Your task to perform on an android device: find photos in the google photos app Image 0: 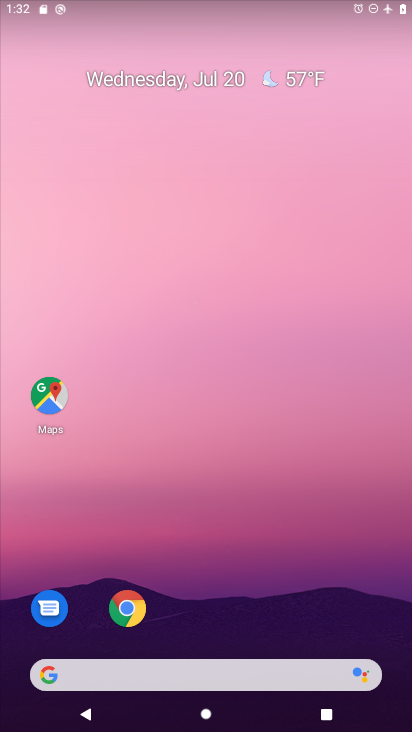
Step 0: drag from (258, 644) to (328, 81)
Your task to perform on an android device: find photos in the google photos app Image 1: 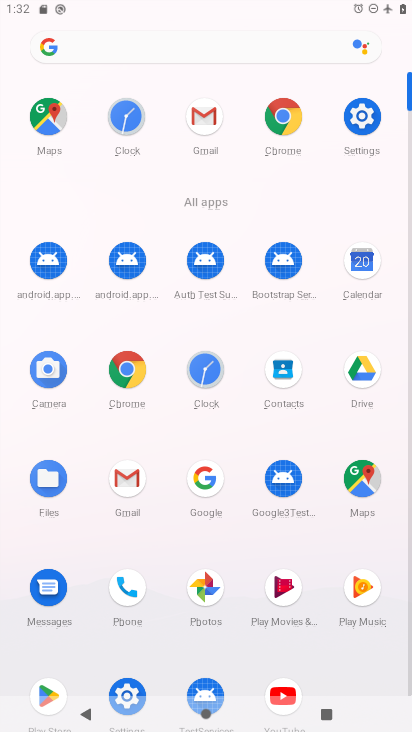
Step 1: click (198, 591)
Your task to perform on an android device: find photos in the google photos app Image 2: 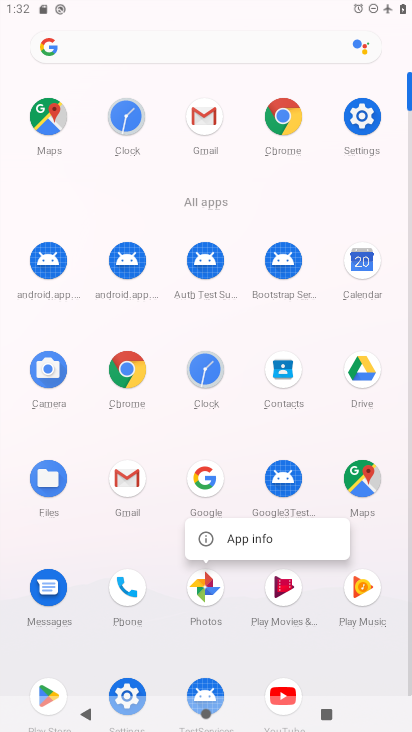
Step 2: click (198, 591)
Your task to perform on an android device: find photos in the google photos app Image 3: 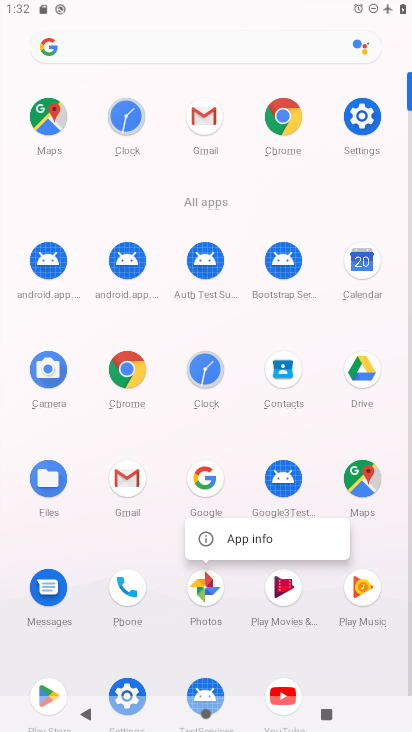
Step 3: click (198, 591)
Your task to perform on an android device: find photos in the google photos app Image 4: 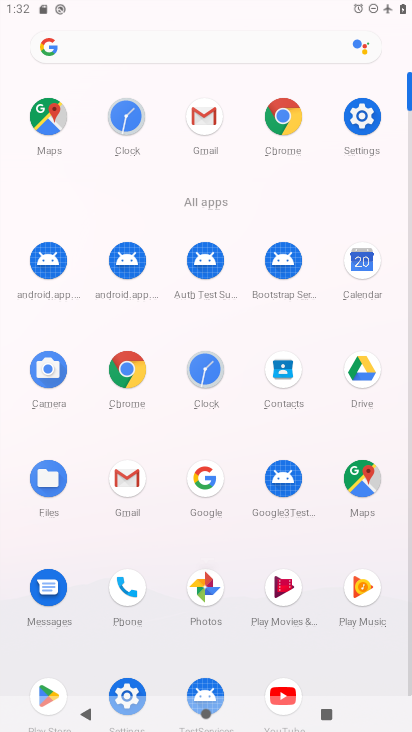
Step 4: click (198, 591)
Your task to perform on an android device: find photos in the google photos app Image 5: 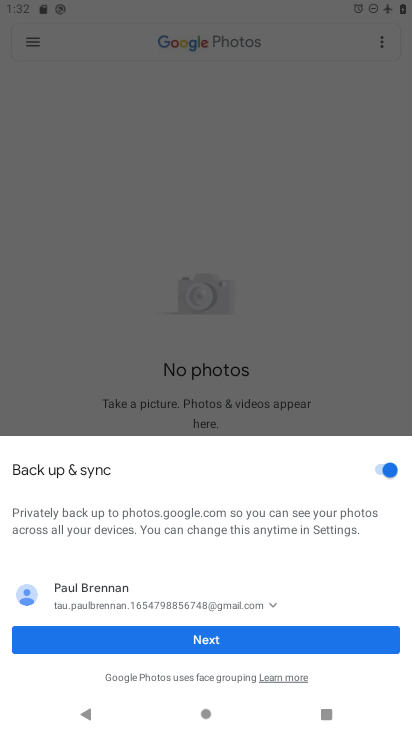
Step 5: click (282, 644)
Your task to perform on an android device: find photos in the google photos app Image 6: 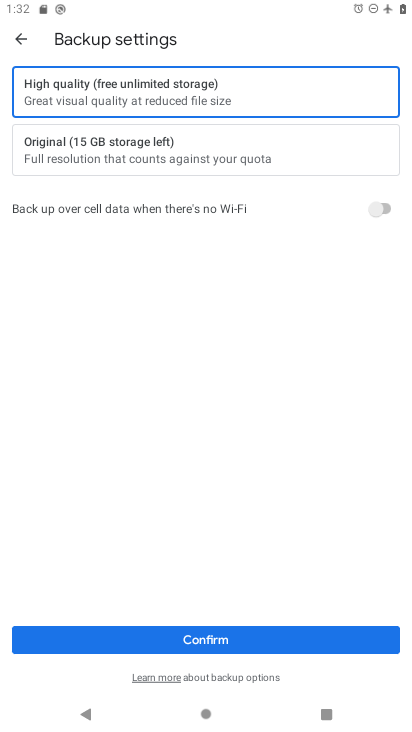
Step 6: click (282, 644)
Your task to perform on an android device: find photos in the google photos app Image 7: 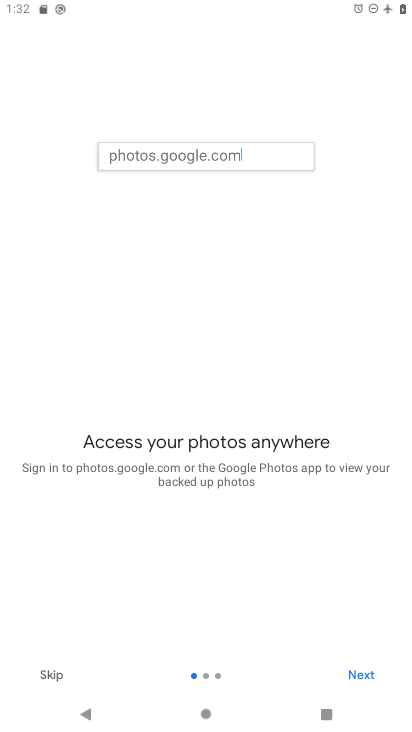
Step 7: click (349, 666)
Your task to perform on an android device: find photos in the google photos app Image 8: 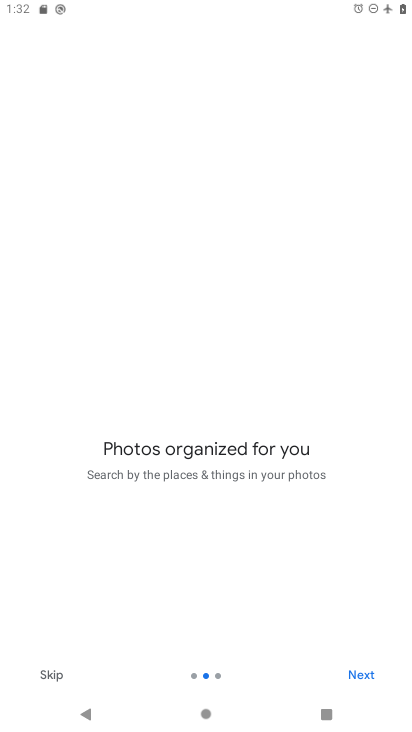
Step 8: click (349, 666)
Your task to perform on an android device: find photos in the google photos app Image 9: 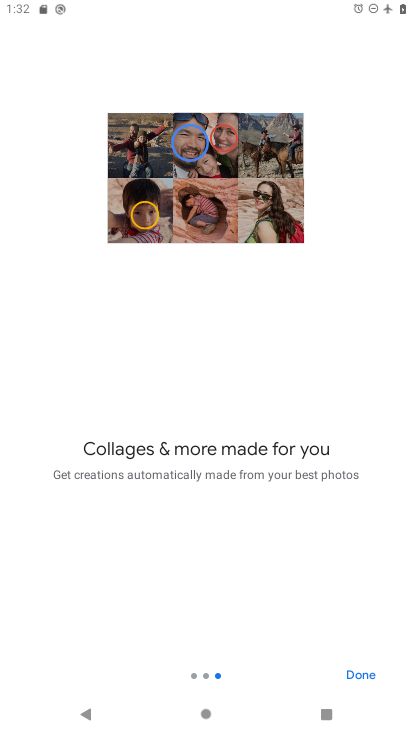
Step 9: click (349, 666)
Your task to perform on an android device: find photos in the google photos app Image 10: 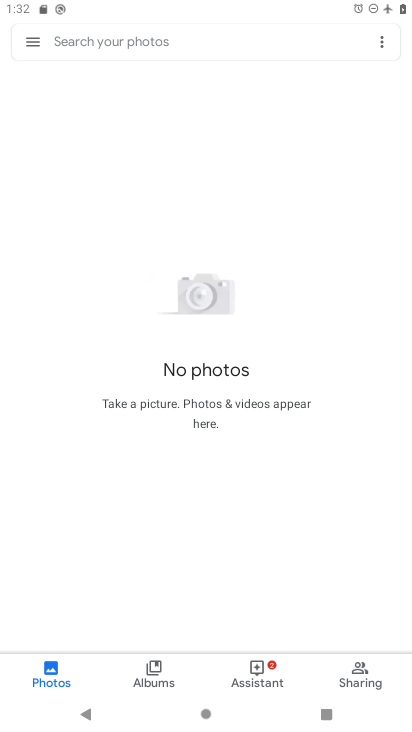
Step 10: click (181, 26)
Your task to perform on an android device: find photos in the google photos app Image 11: 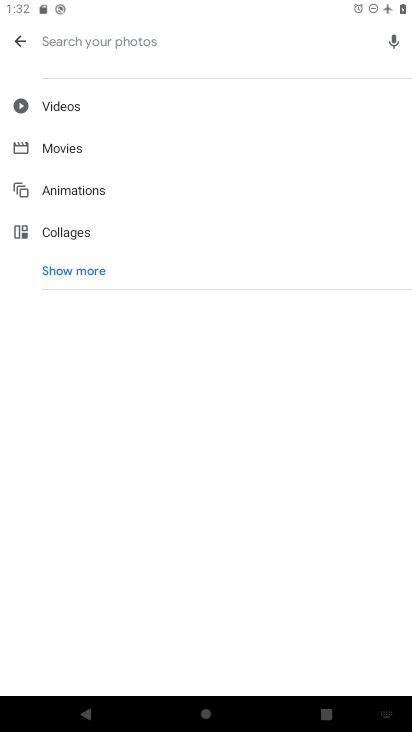
Step 11: task complete